Your task to perform on an android device: Open CNN.com Image 0: 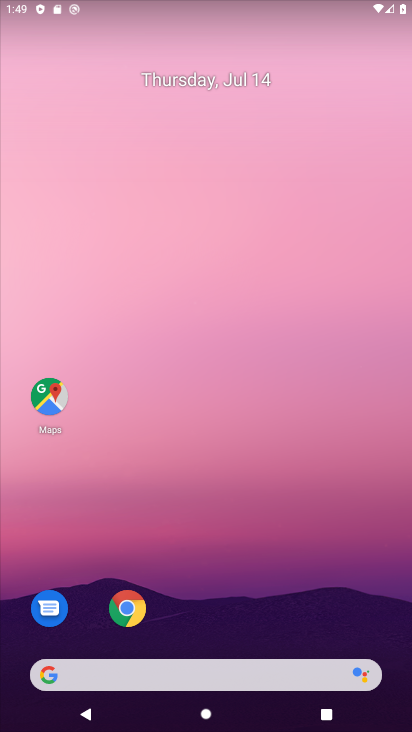
Step 0: click (125, 604)
Your task to perform on an android device: Open CNN.com Image 1: 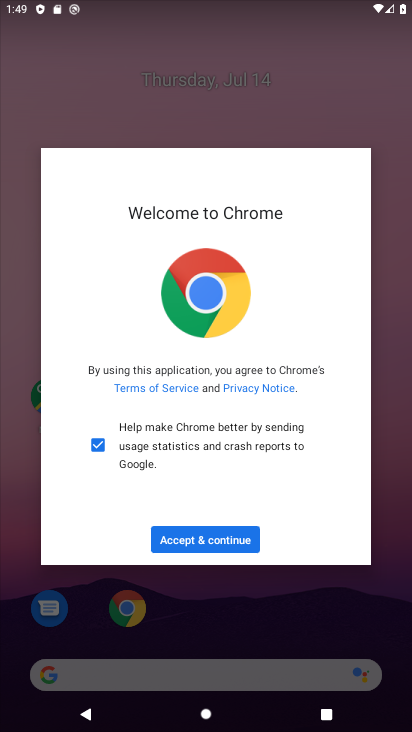
Step 1: click (170, 547)
Your task to perform on an android device: Open CNN.com Image 2: 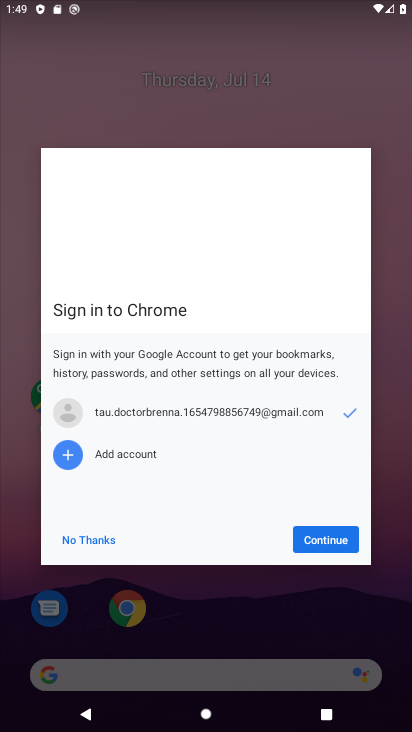
Step 2: click (305, 535)
Your task to perform on an android device: Open CNN.com Image 3: 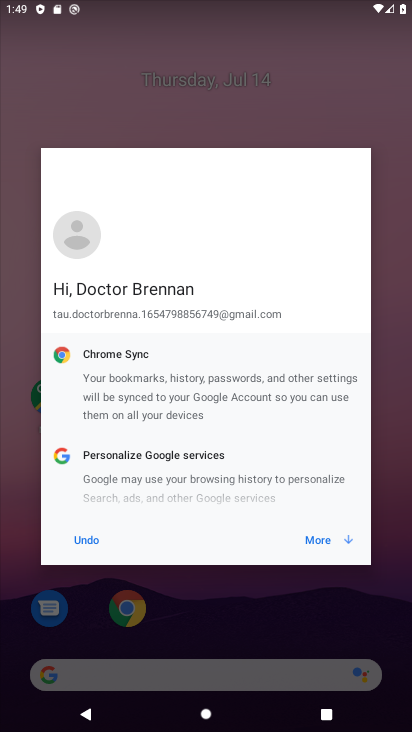
Step 3: click (312, 540)
Your task to perform on an android device: Open CNN.com Image 4: 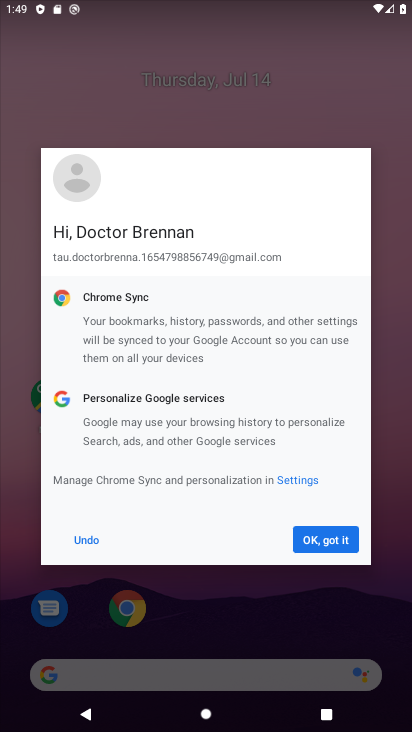
Step 4: click (312, 540)
Your task to perform on an android device: Open CNN.com Image 5: 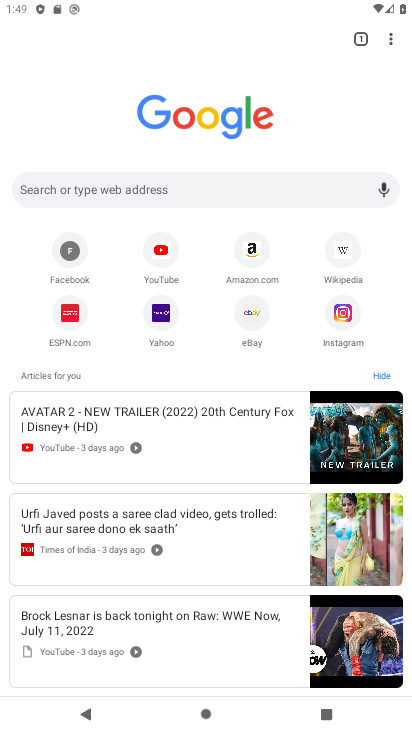
Step 5: click (173, 181)
Your task to perform on an android device: Open CNN.com Image 6: 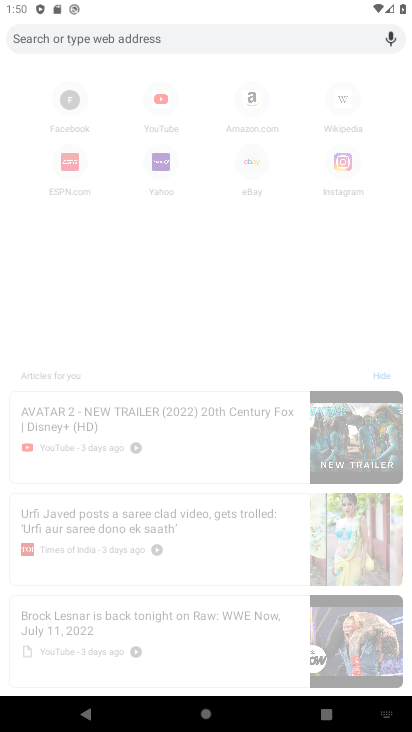
Step 6: type "CNN.com"
Your task to perform on an android device: Open CNN.com Image 7: 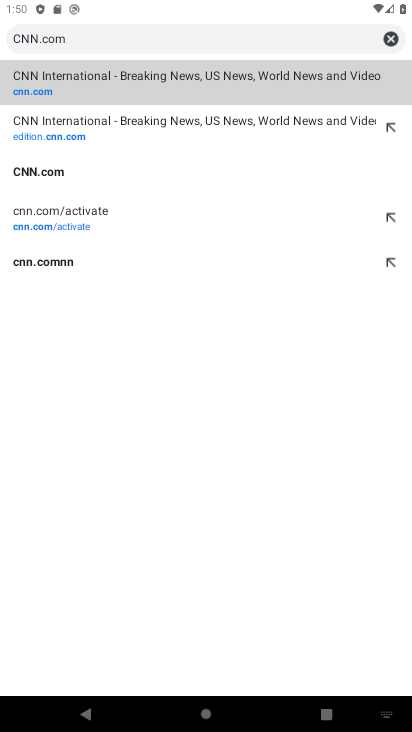
Step 7: click (80, 79)
Your task to perform on an android device: Open CNN.com Image 8: 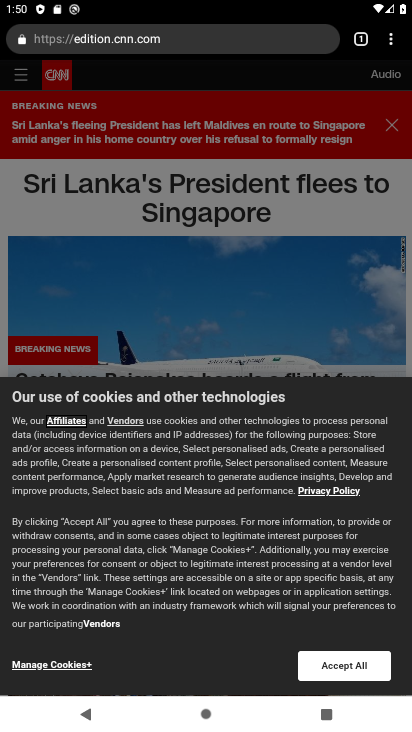
Step 8: task complete